Your task to perform on an android device: Turn off the flashlight Image 0: 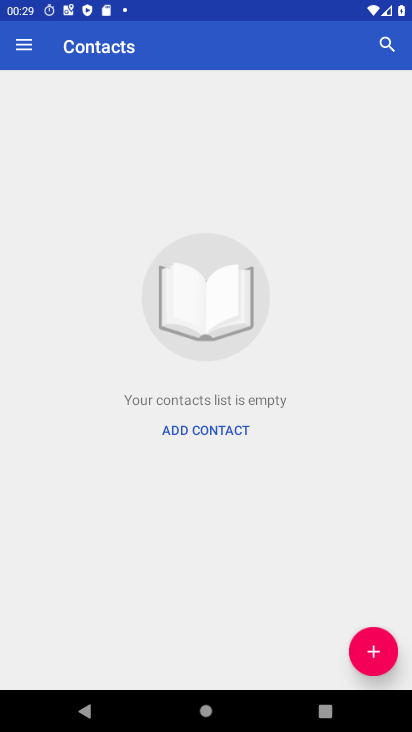
Step 0: press home button
Your task to perform on an android device: Turn off the flashlight Image 1: 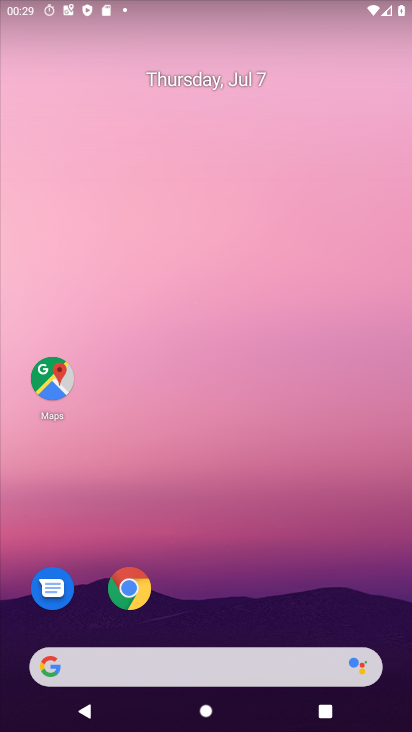
Step 1: drag from (241, 688) to (244, 22)
Your task to perform on an android device: Turn off the flashlight Image 2: 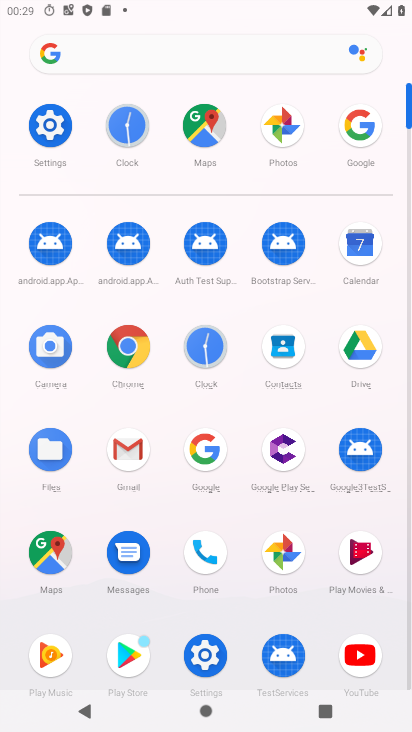
Step 2: click (51, 125)
Your task to perform on an android device: Turn off the flashlight Image 3: 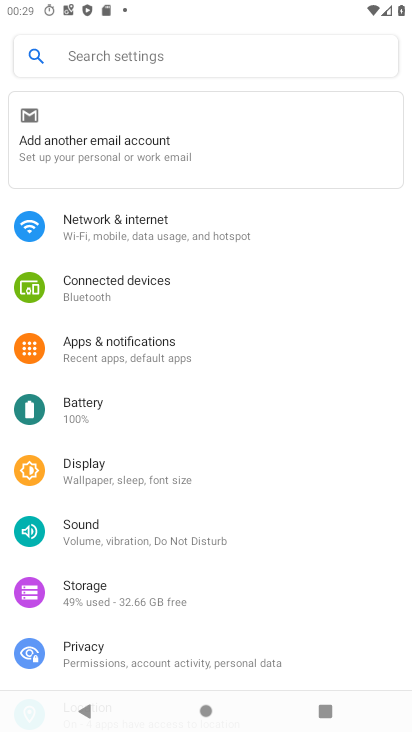
Step 3: task complete